Your task to perform on an android device: set an alarm Image 0: 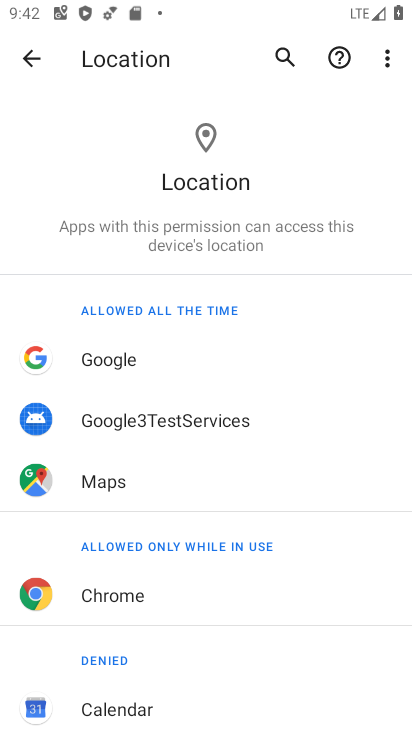
Step 0: press home button
Your task to perform on an android device: set an alarm Image 1: 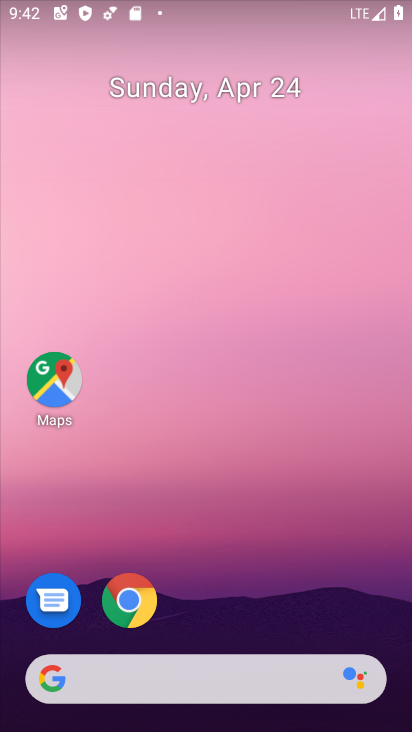
Step 1: drag from (211, 556) to (38, 442)
Your task to perform on an android device: set an alarm Image 2: 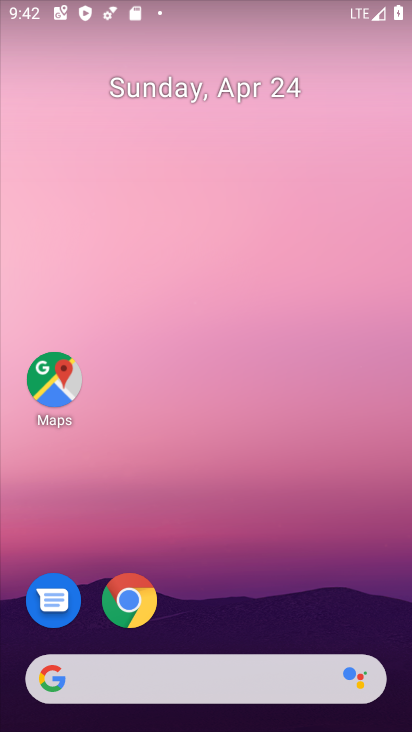
Step 2: click (210, 449)
Your task to perform on an android device: set an alarm Image 3: 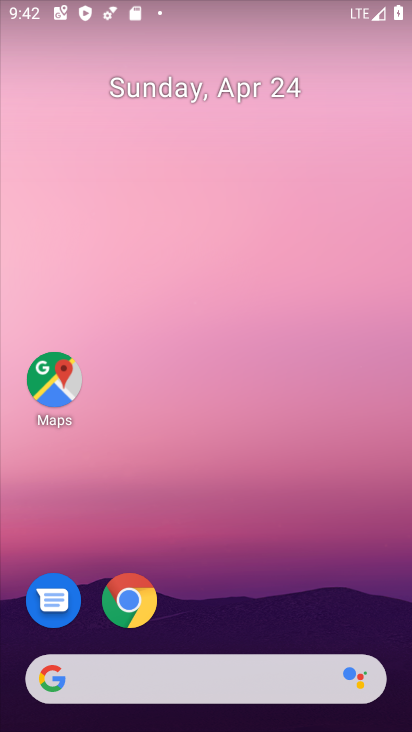
Step 3: drag from (220, 568) to (358, 4)
Your task to perform on an android device: set an alarm Image 4: 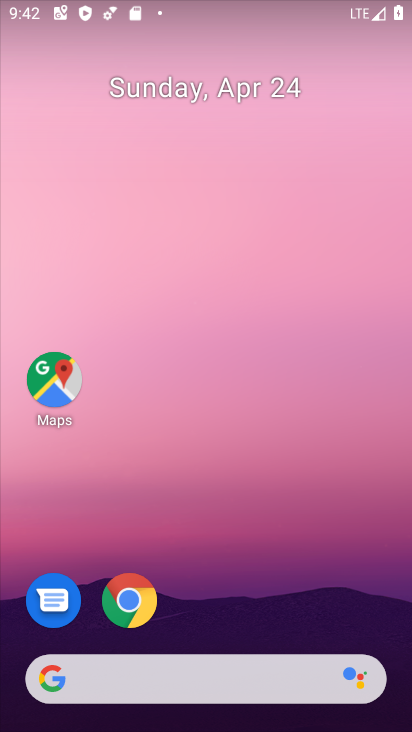
Step 4: drag from (205, 631) to (304, 28)
Your task to perform on an android device: set an alarm Image 5: 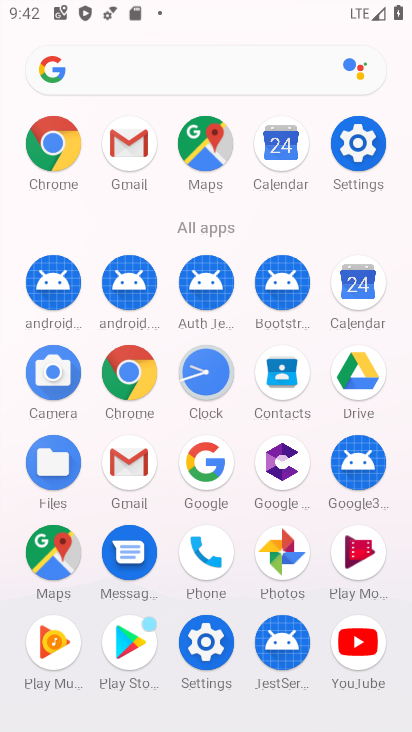
Step 5: click (200, 370)
Your task to perform on an android device: set an alarm Image 6: 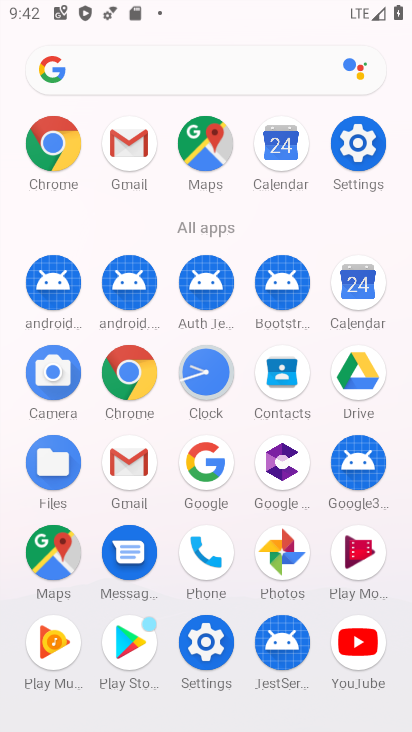
Step 6: click (200, 370)
Your task to perform on an android device: set an alarm Image 7: 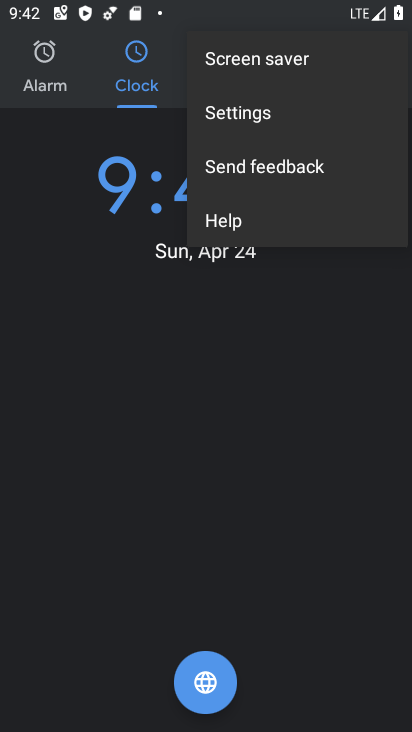
Step 7: click (34, 70)
Your task to perform on an android device: set an alarm Image 8: 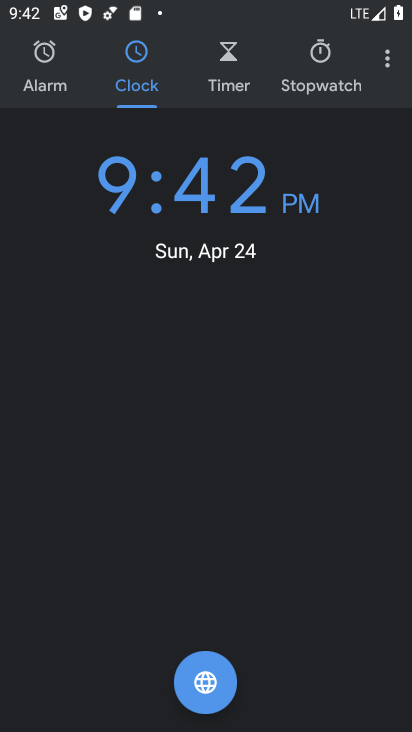
Step 8: click (54, 78)
Your task to perform on an android device: set an alarm Image 9: 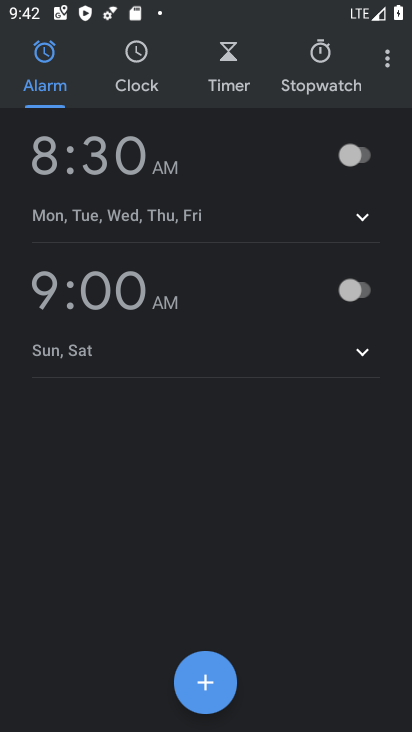
Step 9: click (357, 157)
Your task to perform on an android device: set an alarm Image 10: 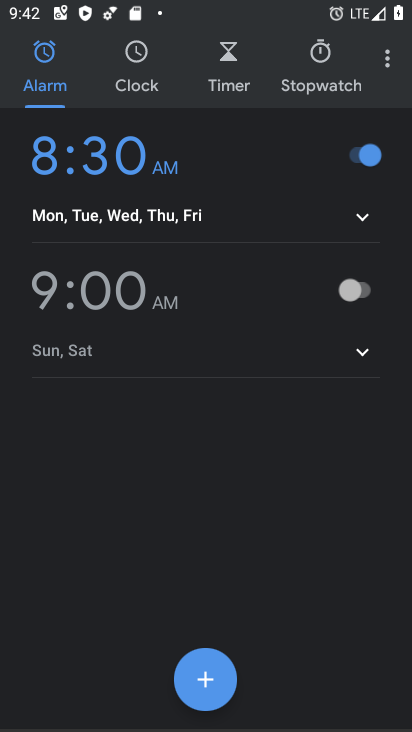
Step 10: task complete